Your task to perform on an android device: Open internet settings Image 0: 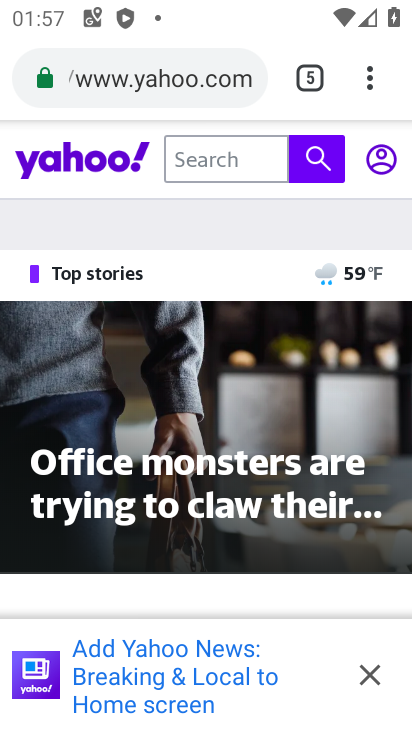
Step 0: press home button
Your task to perform on an android device: Open internet settings Image 1: 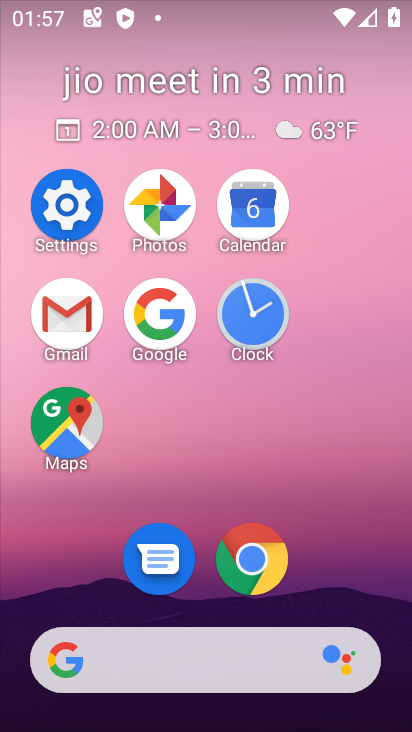
Step 1: click (67, 210)
Your task to perform on an android device: Open internet settings Image 2: 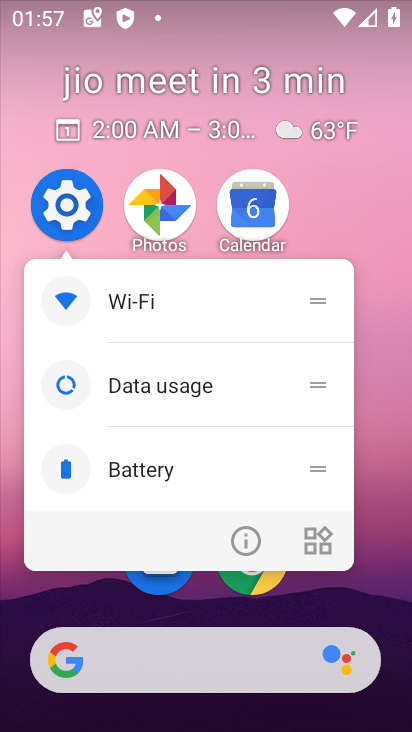
Step 2: click (73, 213)
Your task to perform on an android device: Open internet settings Image 3: 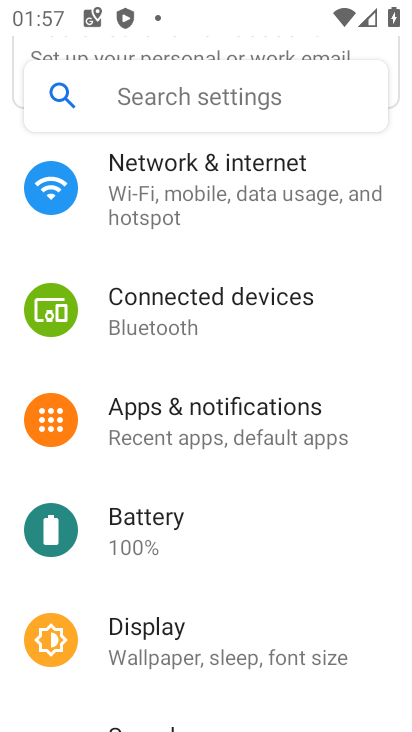
Step 3: drag from (269, 194) to (267, 485)
Your task to perform on an android device: Open internet settings Image 4: 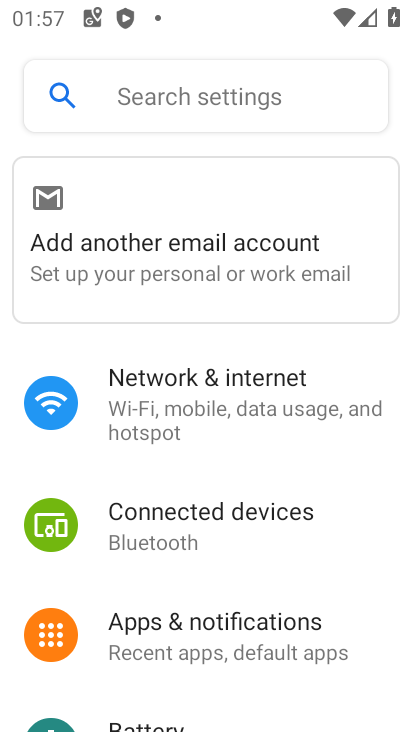
Step 4: click (241, 393)
Your task to perform on an android device: Open internet settings Image 5: 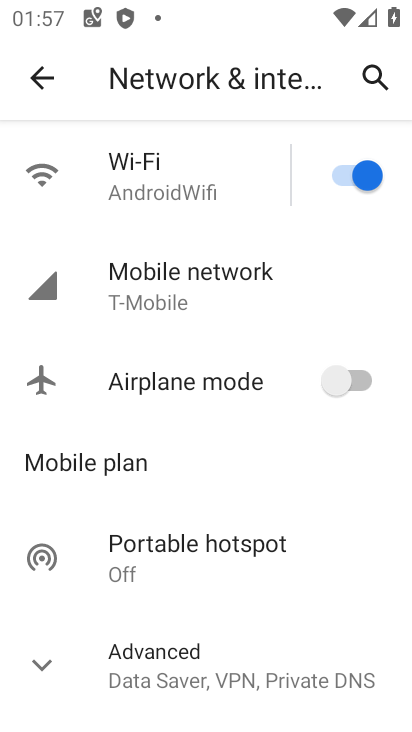
Step 5: task complete